Your task to perform on an android device: What is the news today? Image 0: 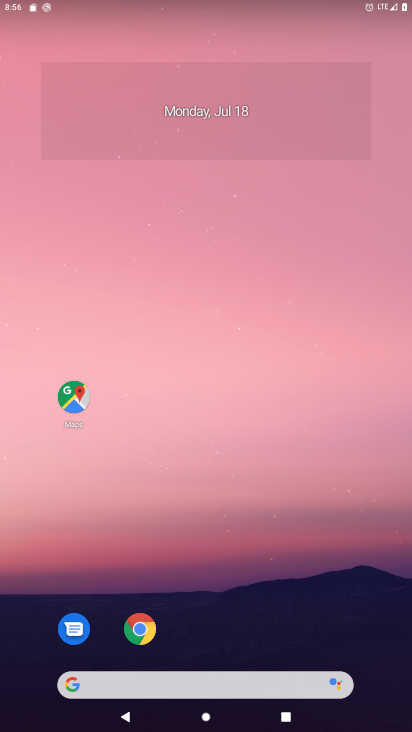
Step 0: drag from (211, 525) to (202, 11)
Your task to perform on an android device: What is the news today? Image 1: 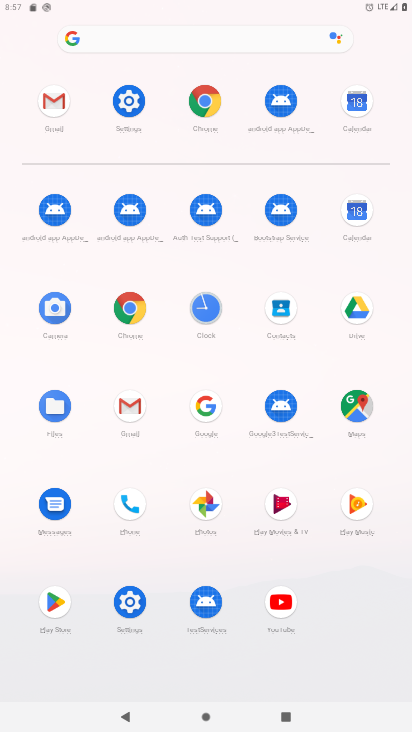
Step 1: click (192, 37)
Your task to perform on an android device: What is the news today? Image 2: 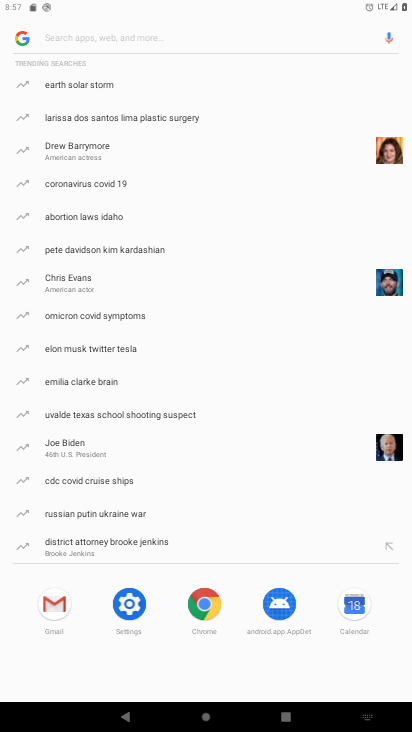
Step 2: type "news today ?"
Your task to perform on an android device: What is the news today? Image 3: 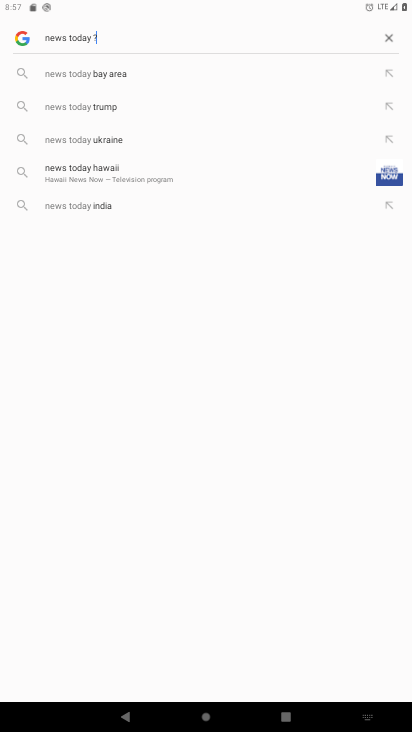
Step 3: click (113, 78)
Your task to perform on an android device: What is the news today? Image 4: 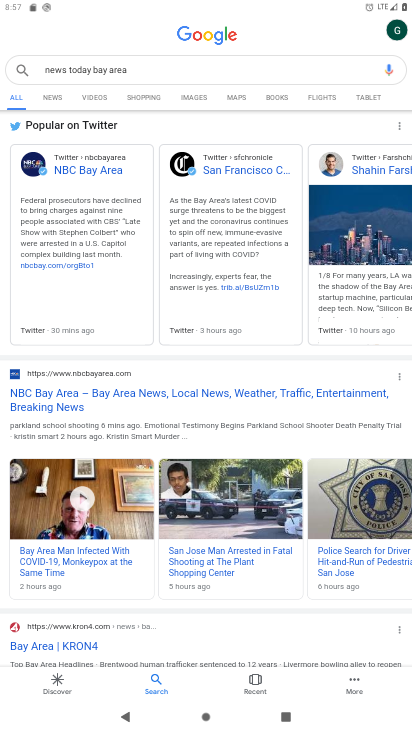
Step 4: task complete